Your task to perform on an android device: open chrome and create a bookmark for the current page Image 0: 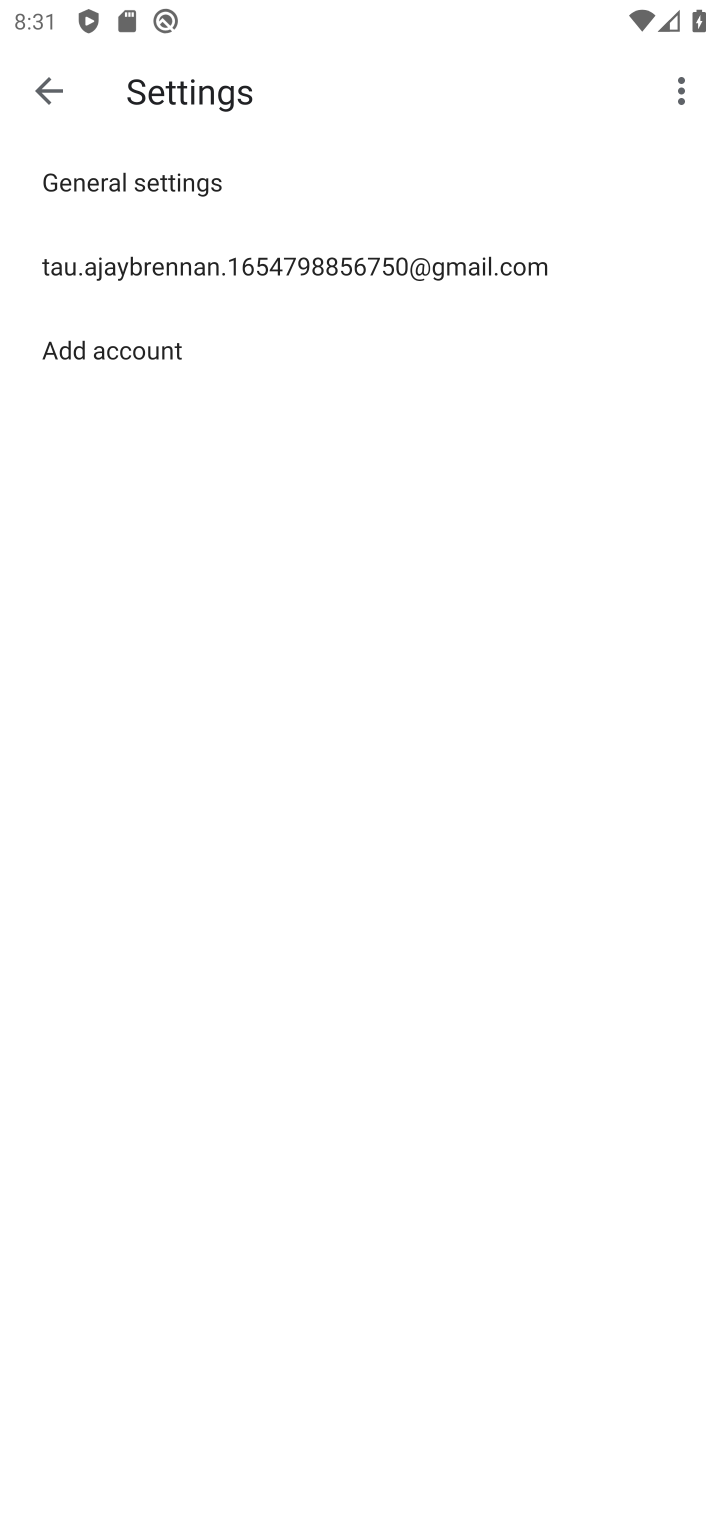
Step 0: press home button
Your task to perform on an android device: open chrome and create a bookmark for the current page Image 1: 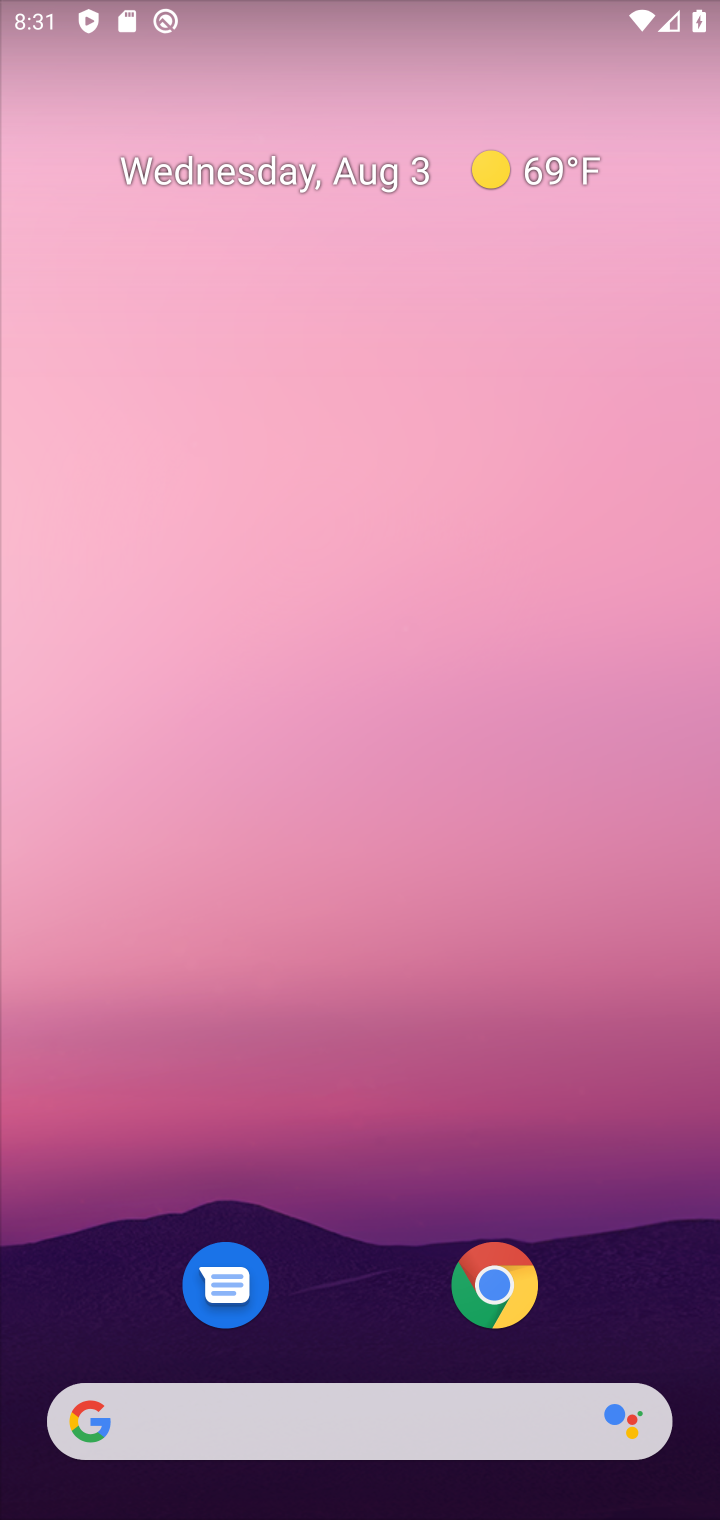
Step 1: click (507, 1279)
Your task to perform on an android device: open chrome and create a bookmark for the current page Image 2: 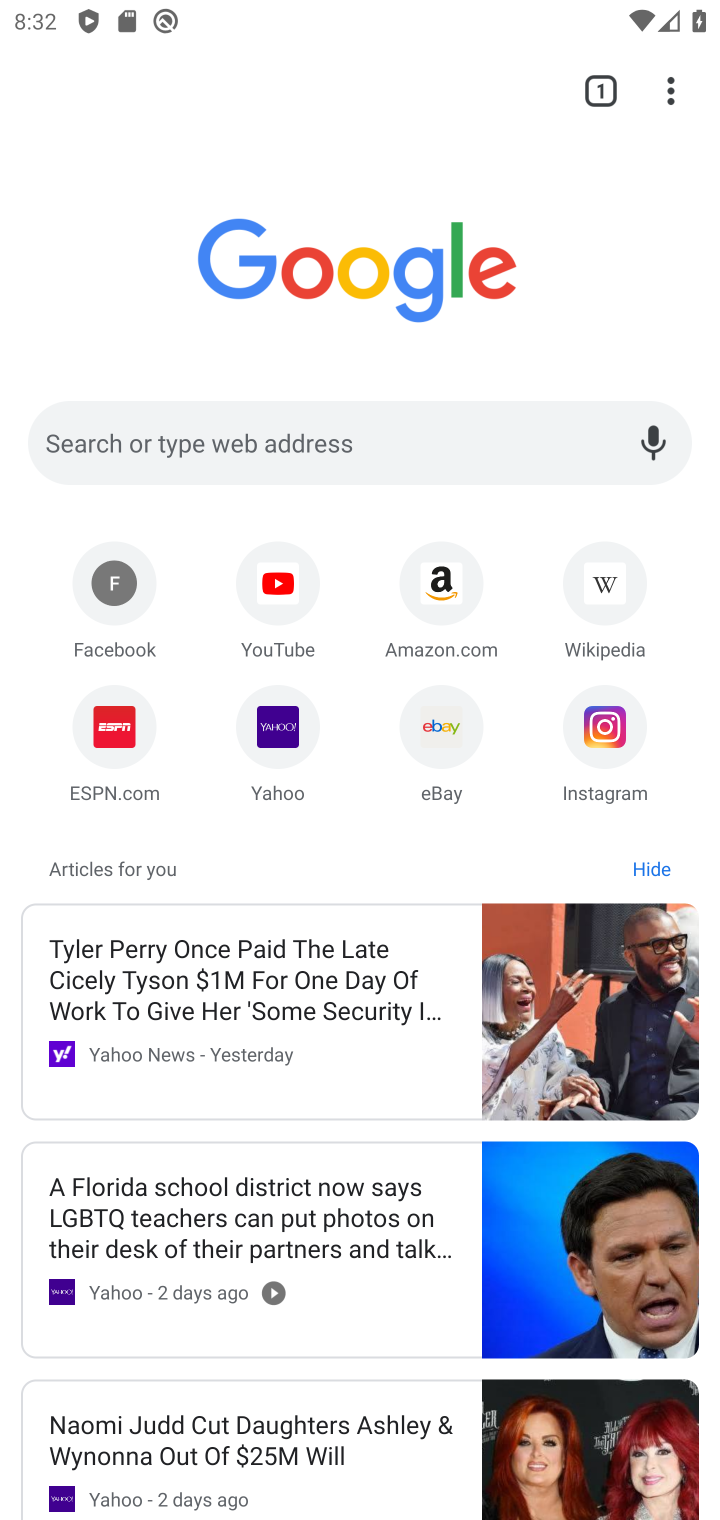
Step 2: click (685, 93)
Your task to perform on an android device: open chrome and create a bookmark for the current page Image 3: 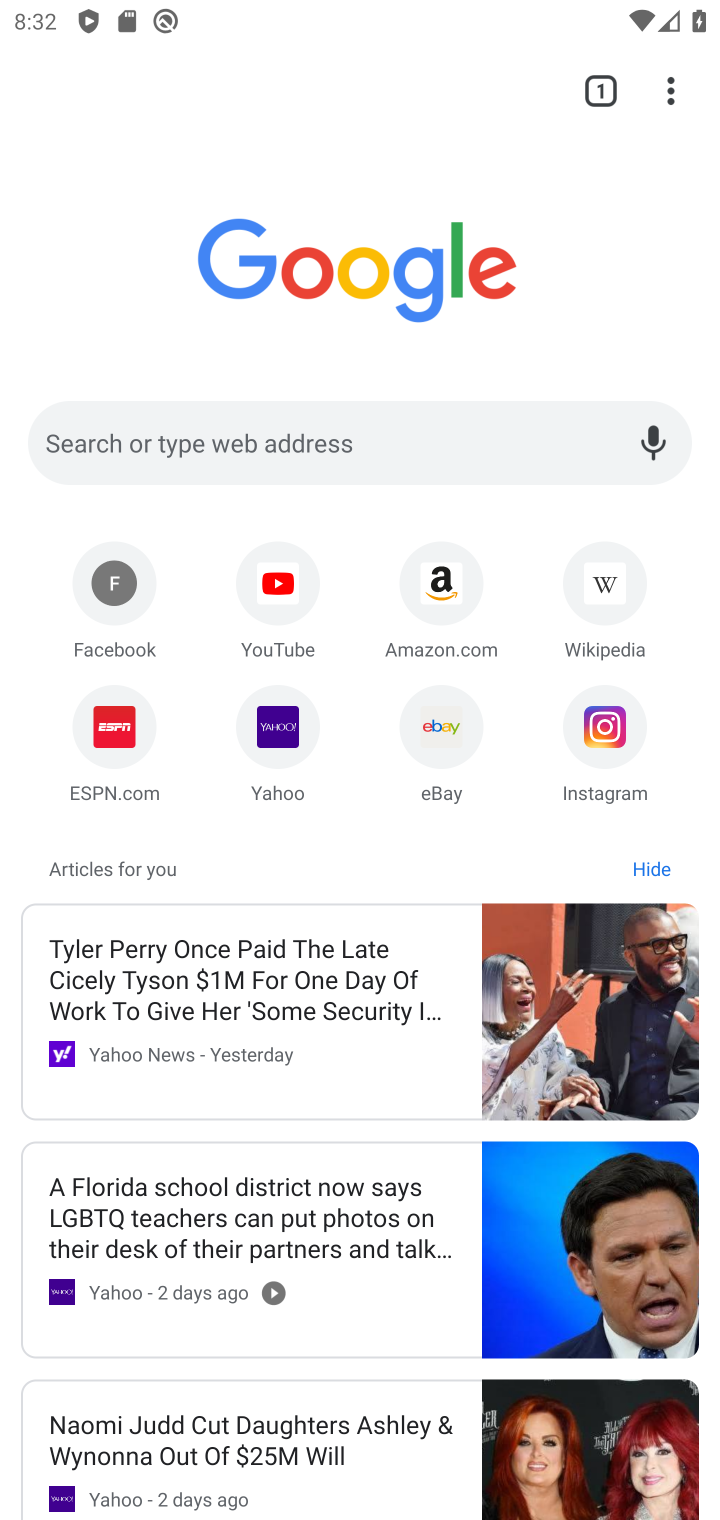
Step 3: click (660, 97)
Your task to perform on an android device: open chrome and create a bookmark for the current page Image 4: 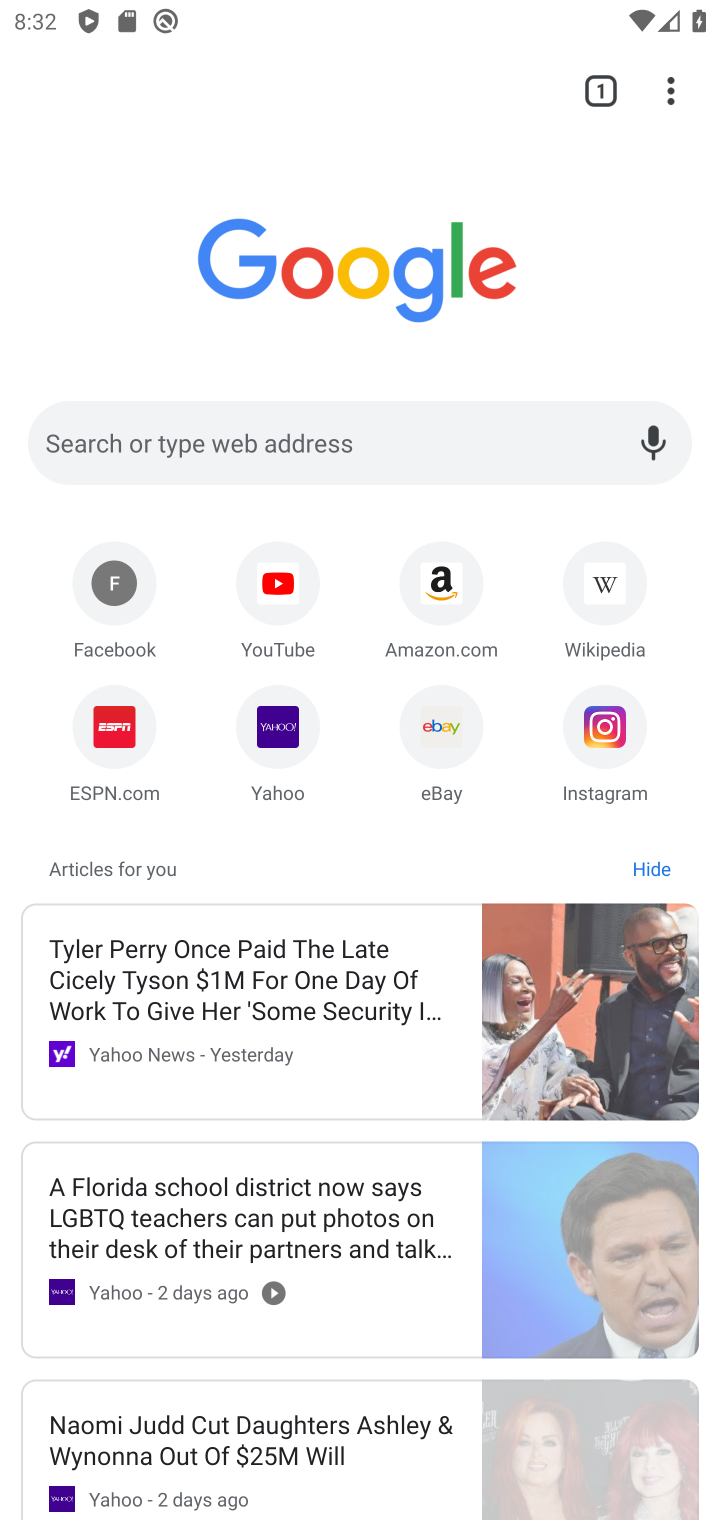
Step 4: click (660, 97)
Your task to perform on an android device: open chrome and create a bookmark for the current page Image 5: 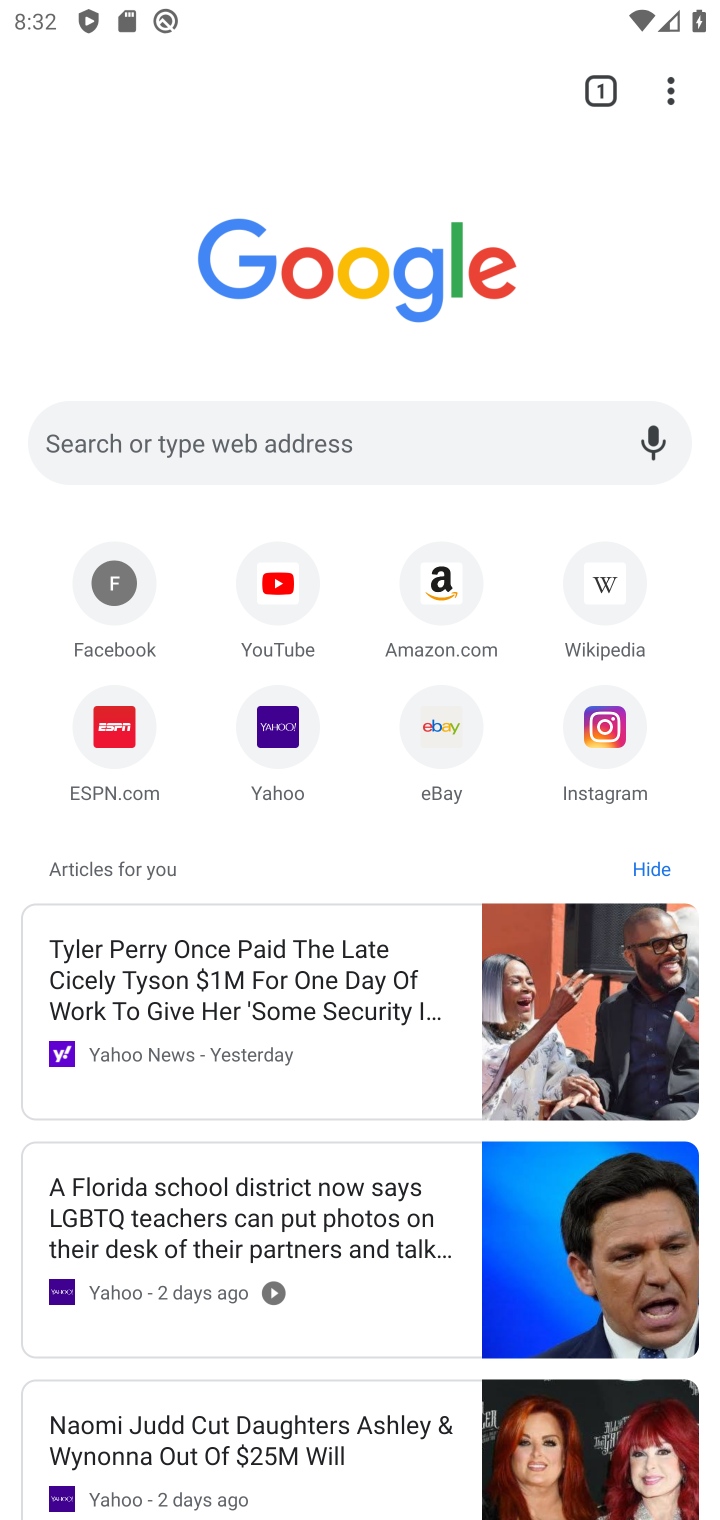
Step 5: click (660, 97)
Your task to perform on an android device: open chrome and create a bookmark for the current page Image 6: 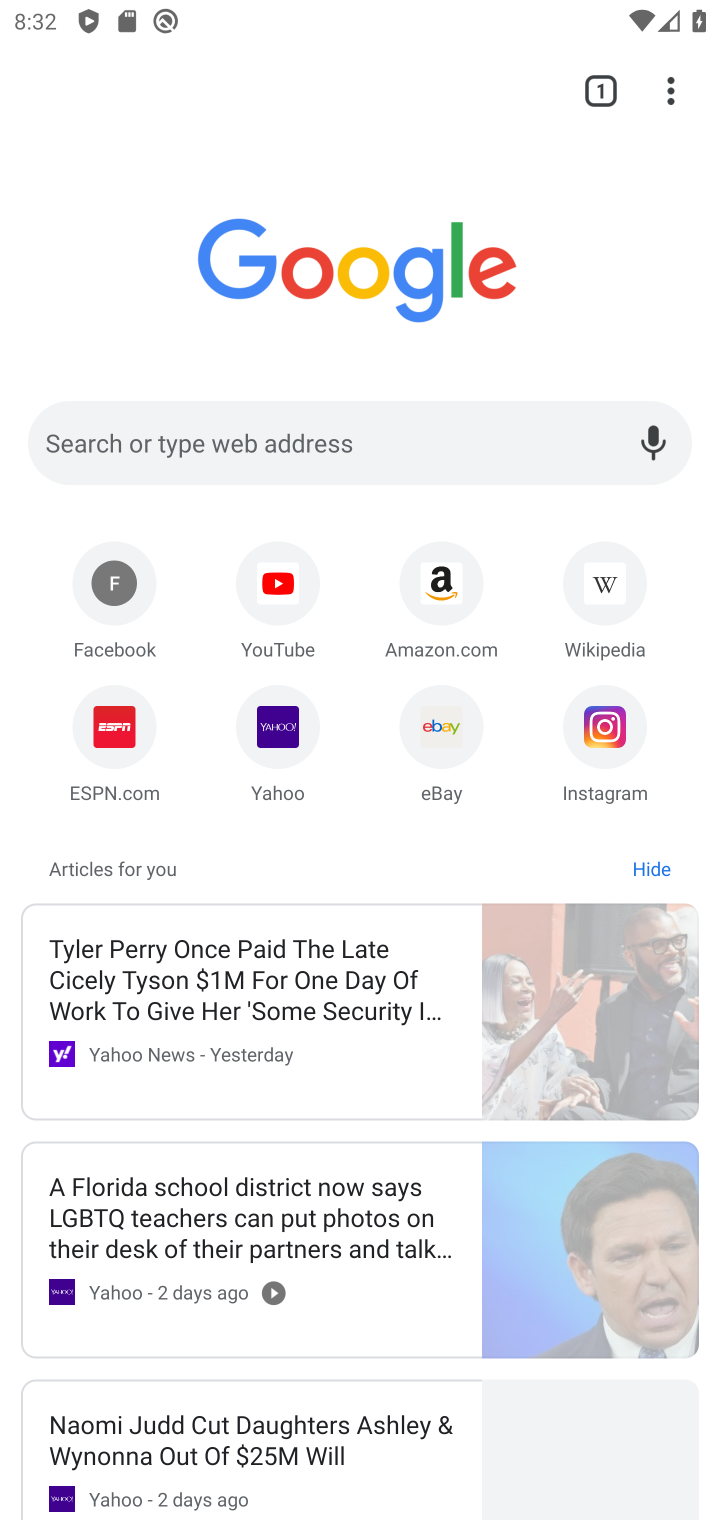
Step 6: click (660, 97)
Your task to perform on an android device: open chrome and create a bookmark for the current page Image 7: 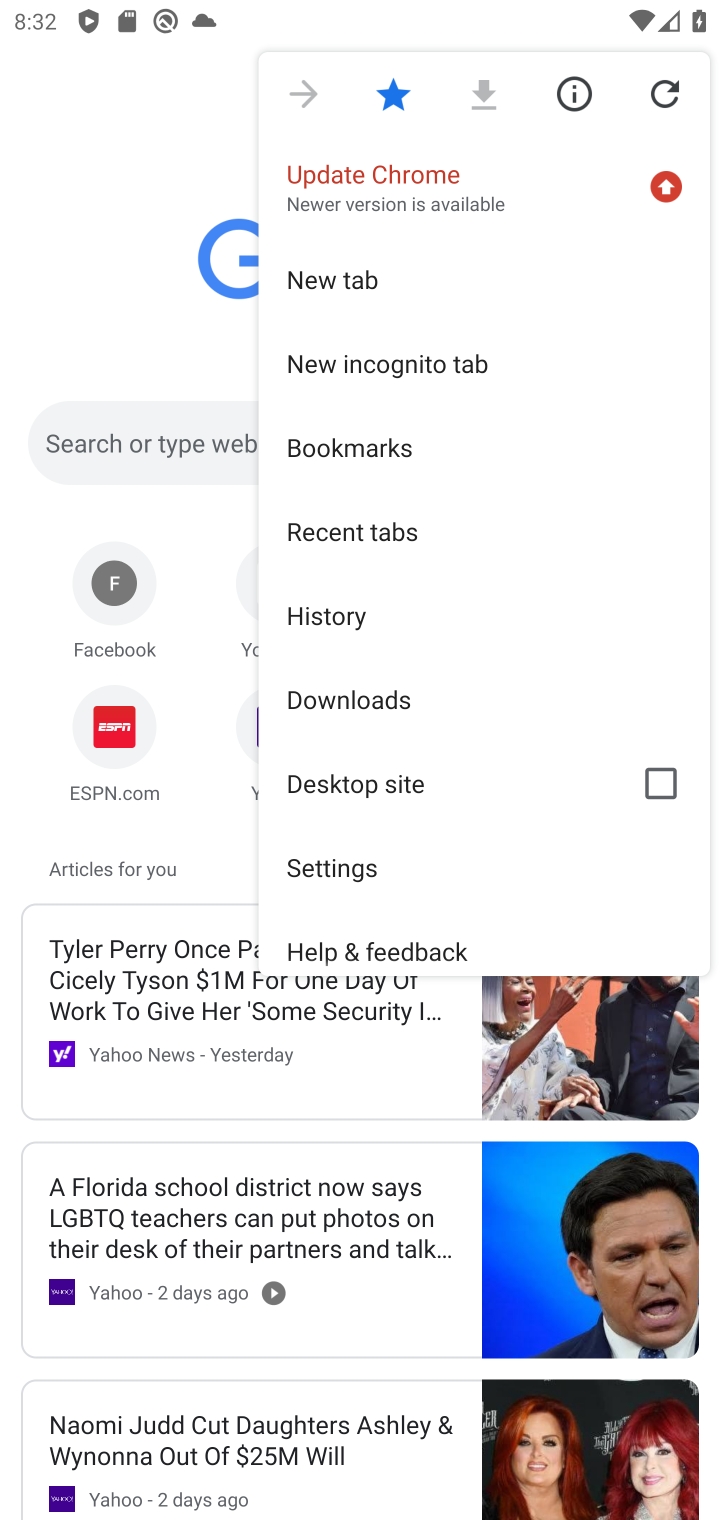
Step 7: task complete